Your task to perform on an android device: turn pop-ups on in chrome Image 0: 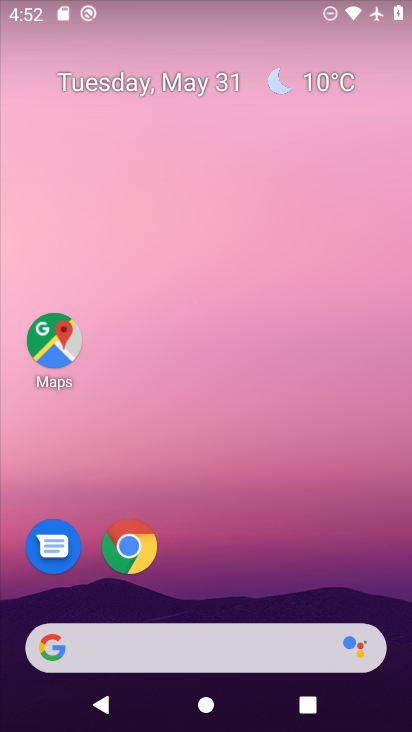
Step 0: click (146, 552)
Your task to perform on an android device: turn pop-ups on in chrome Image 1: 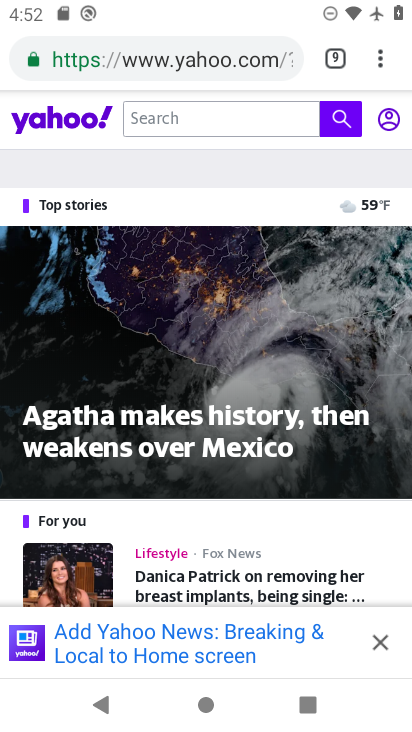
Step 1: click (387, 44)
Your task to perform on an android device: turn pop-ups on in chrome Image 2: 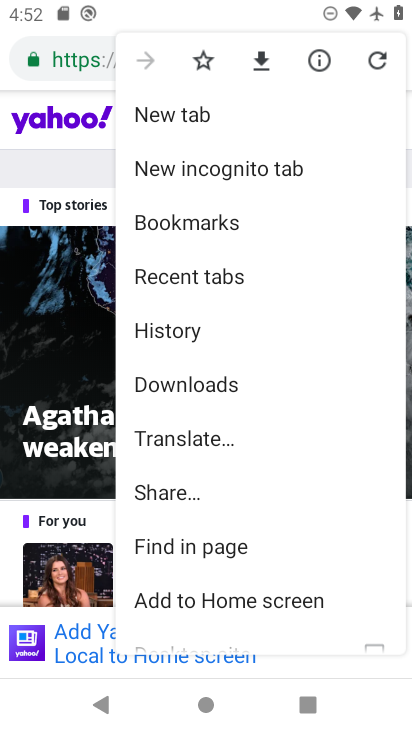
Step 2: drag from (274, 515) to (241, 151)
Your task to perform on an android device: turn pop-ups on in chrome Image 3: 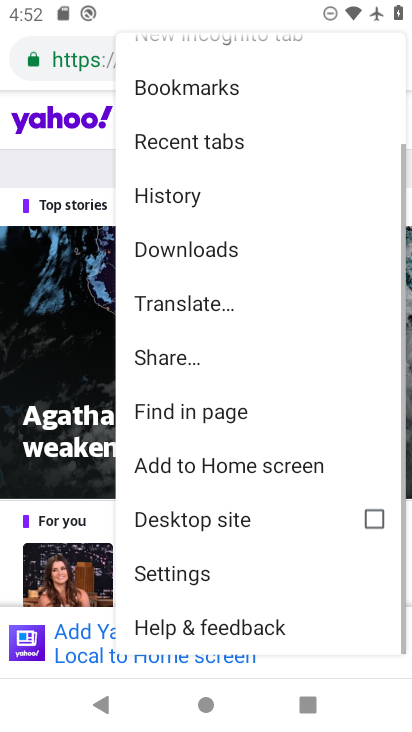
Step 3: click (221, 572)
Your task to perform on an android device: turn pop-ups on in chrome Image 4: 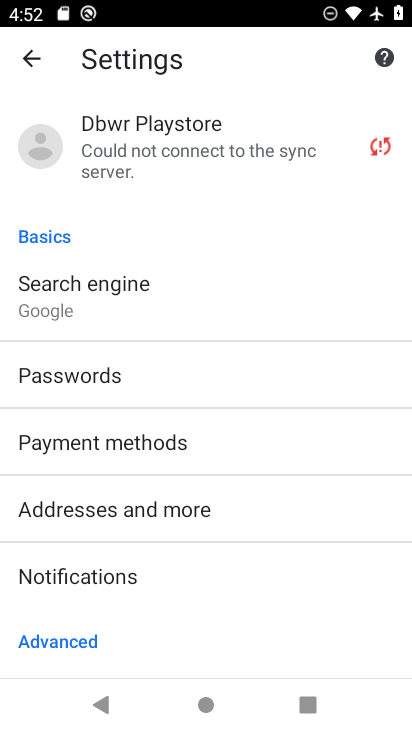
Step 4: drag from (228, 470) to (199, 81)
Your task to perform on an android device: turn pop-ups on in chrome Image 5: 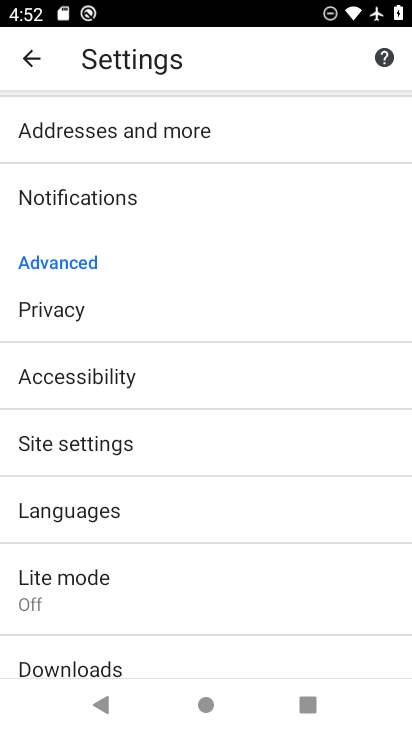
Step 5: click (134, 454)
Your task to perform on an android device: turn pop-ups on in chrome Image 6: 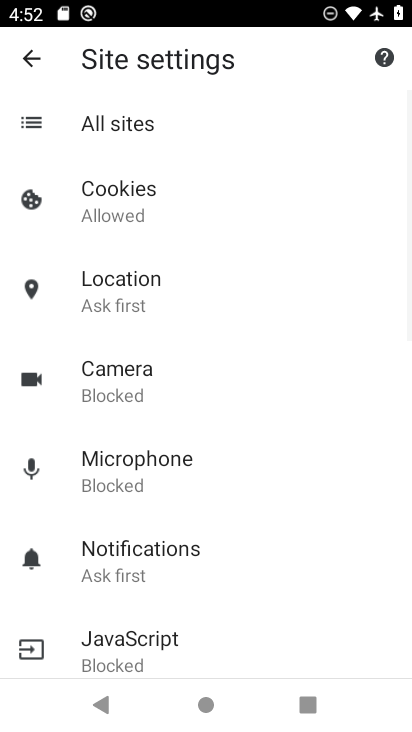
Step 6: drag from (194, 565) to (199, 159)
Your task to perform on an android device: turn pop-ups on in chrome Image 7: 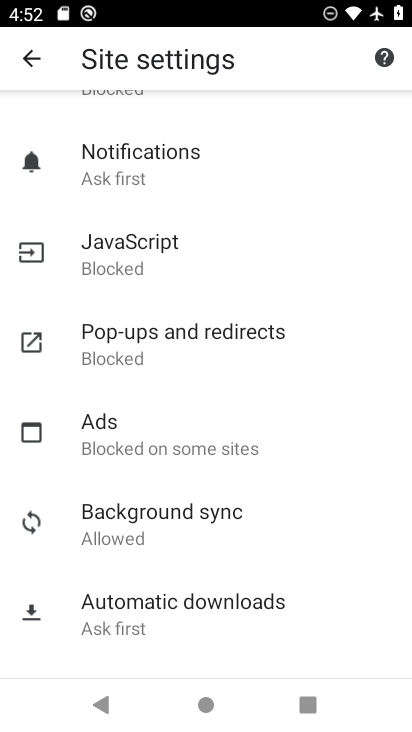
Step 7: click (188, 348)
Your task to perform on an android device: turn pop-ups on in chrome Image 8: 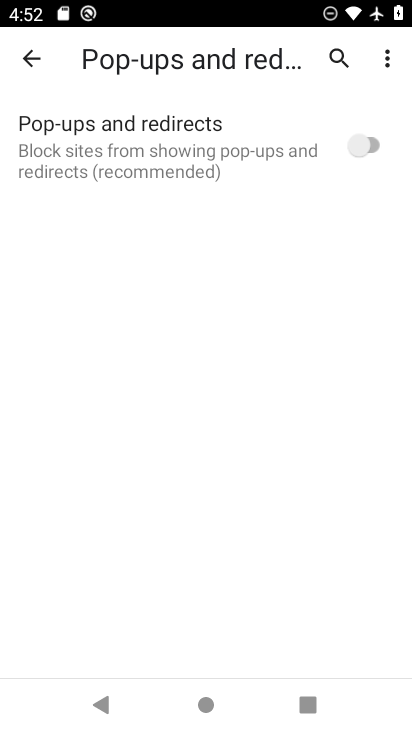
Step 8: click (366, 152)
Your task to perform on an android device: turn pop-ups on in chrome Image 9: 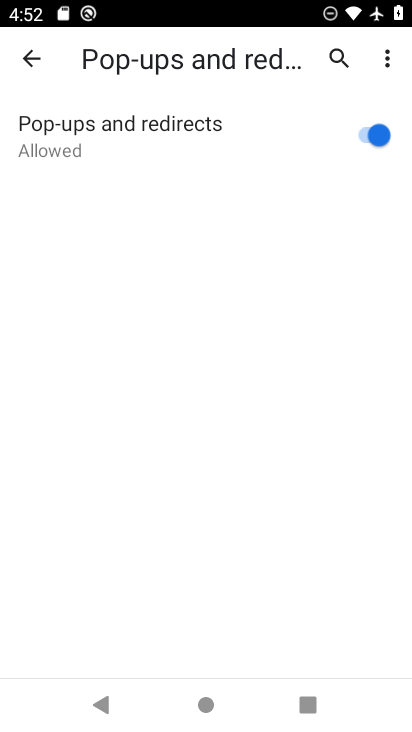
Step 9: task complete